Your task to perform on an android device: open chrome privacy settings Image 0: 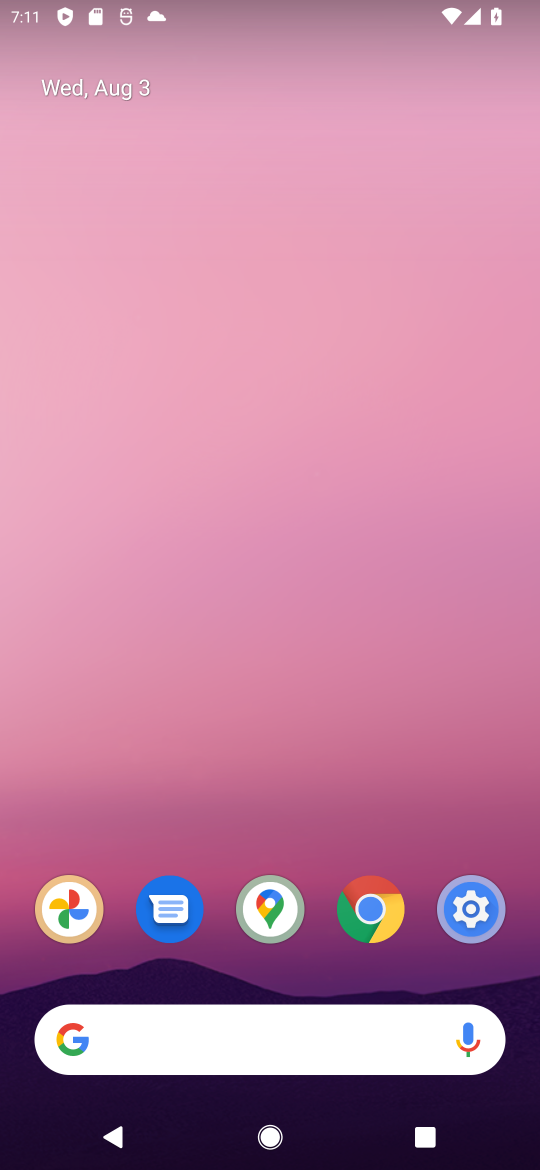
Step 0: press home button
Your task to perform on an android device: open chrome privacy settings Image 1: 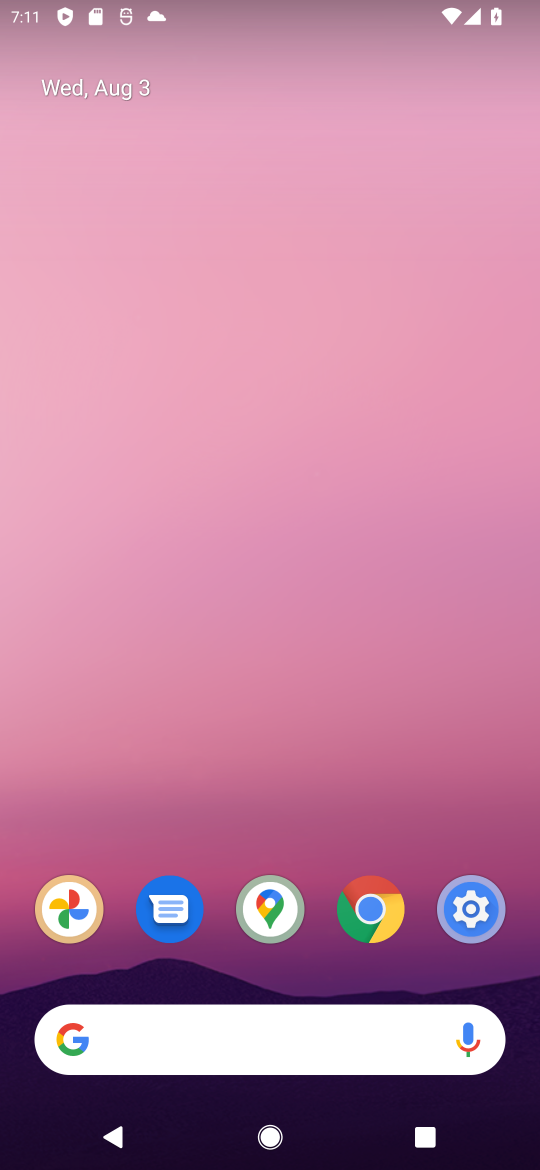
Step 1: drag from (308, 798) to (330, 142)
Your task to perform on an android device: open chrome privacy settings Image 2: 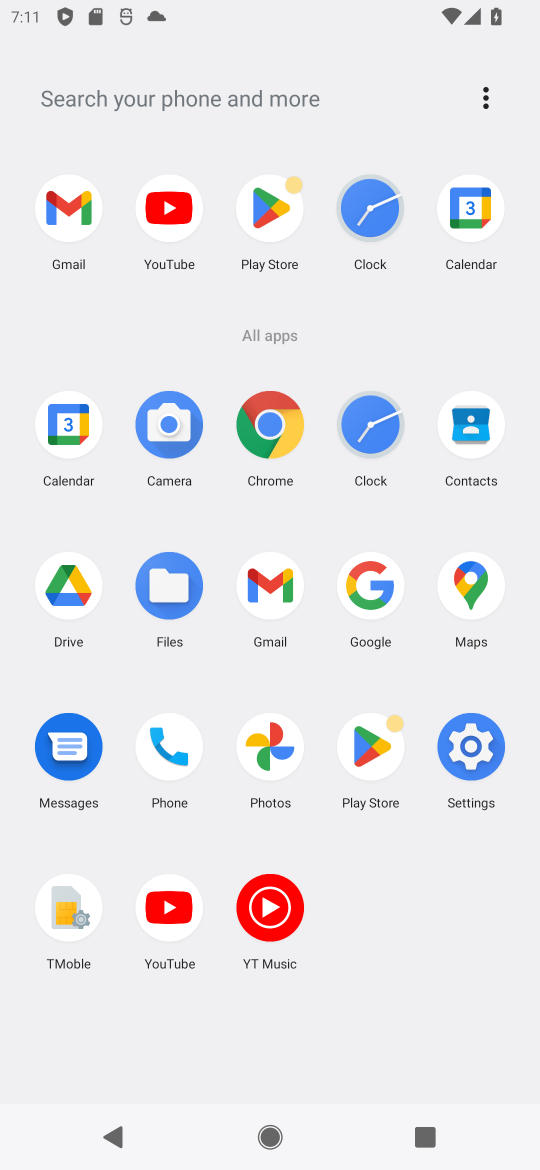
Step 2: click (279, 446)
Your task to perform on an android device: open chrome privacy settings Image 3: 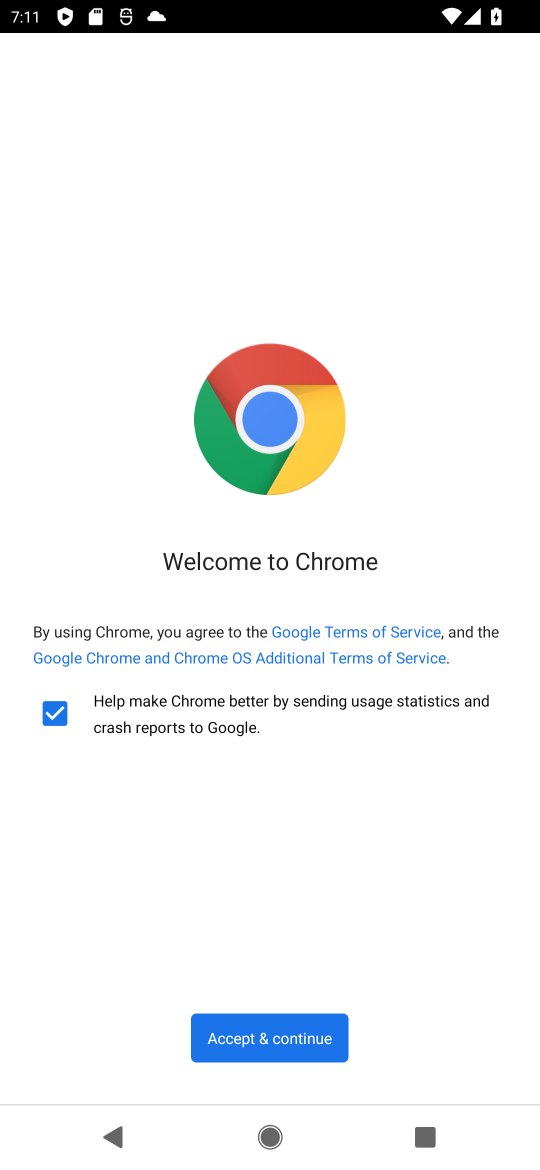
Step 3: click (256, 1035)
Your task to perform on an android device: open chrome privacy settings Image 4: 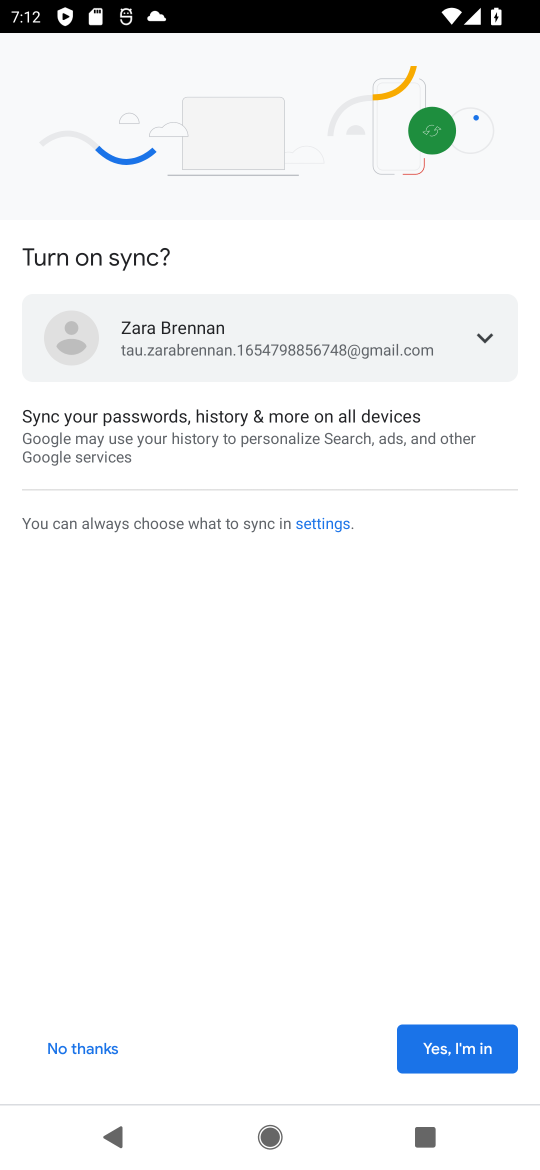
Step 4: click (451, 1047)
Your task to perform on an android device: open chrome privacy settings Image 5: 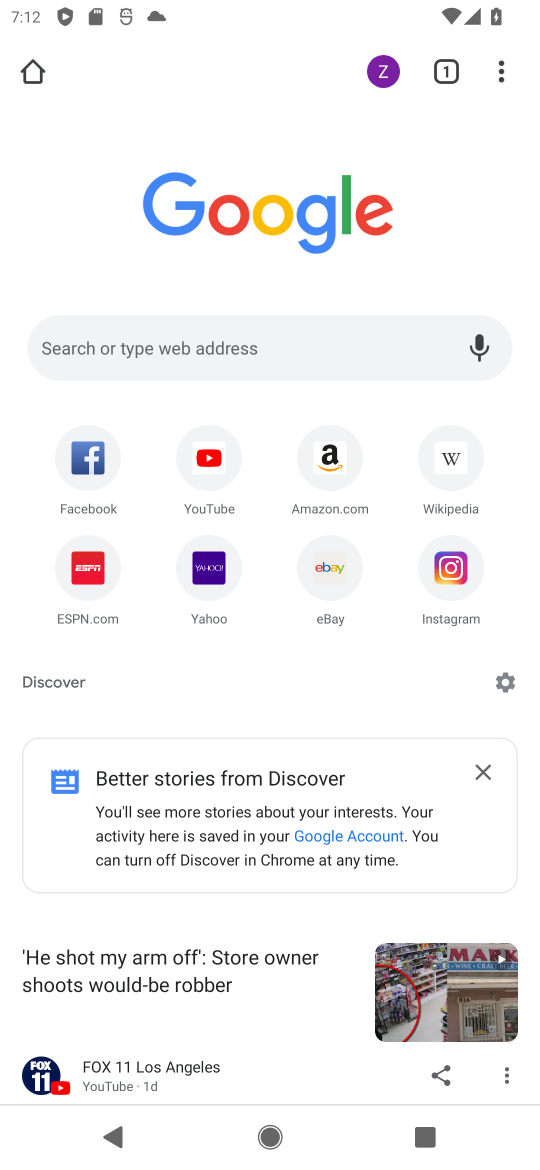
Step 5: click (504, 70)
Your task to perform on an android device: open chrome privacy settings Image 6: 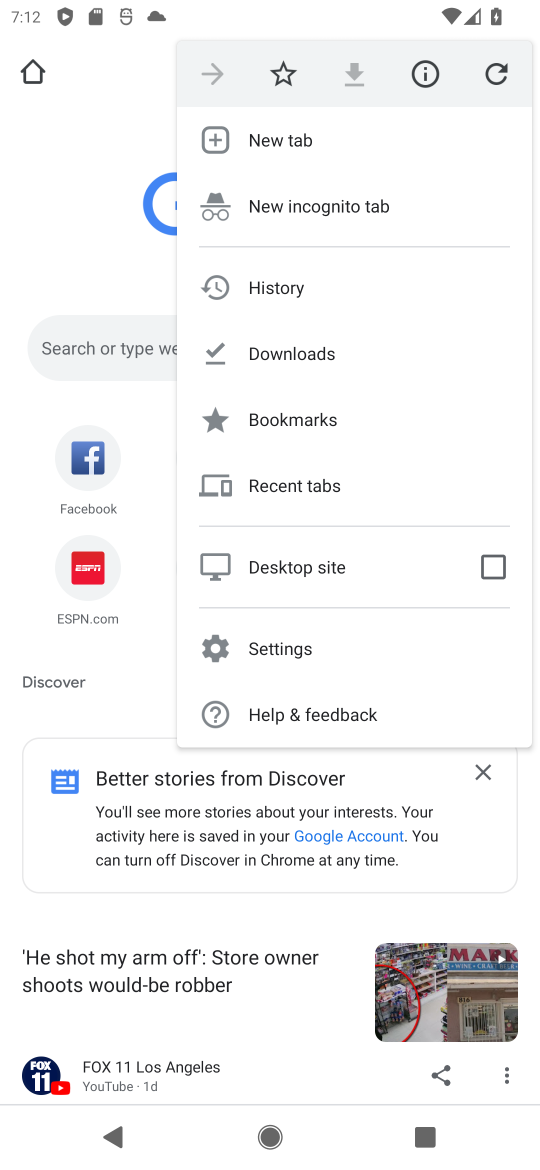
Step 6: click (308, 647)
Your task to perform on an android device: open chrome privacy settings Image 7: 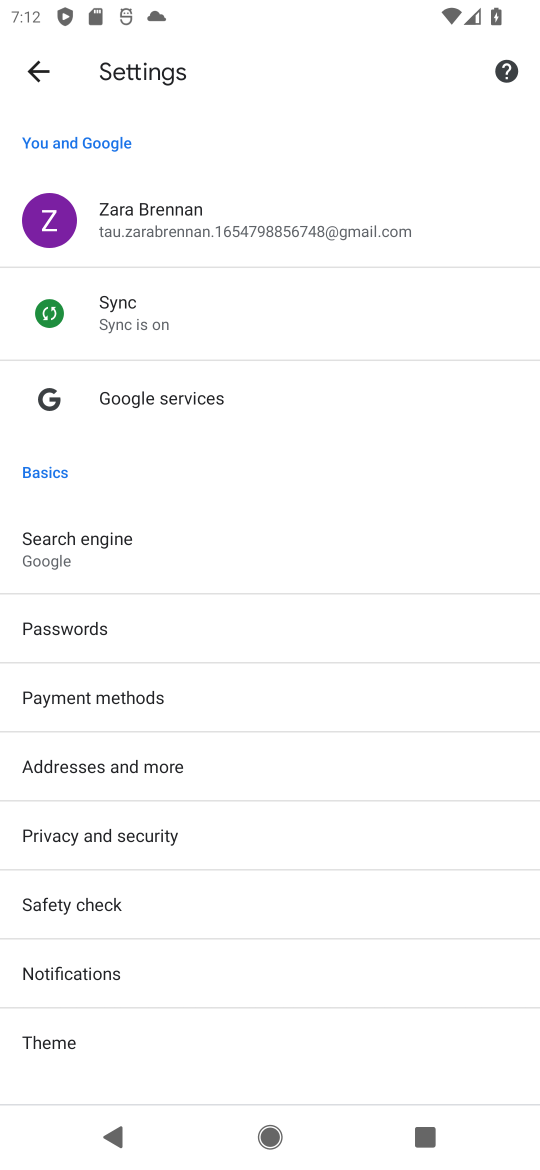
Step 7: drag from (370, 848) to (374, 574)
Your task to perform on an android device: open chrome privacy settings Image 8: 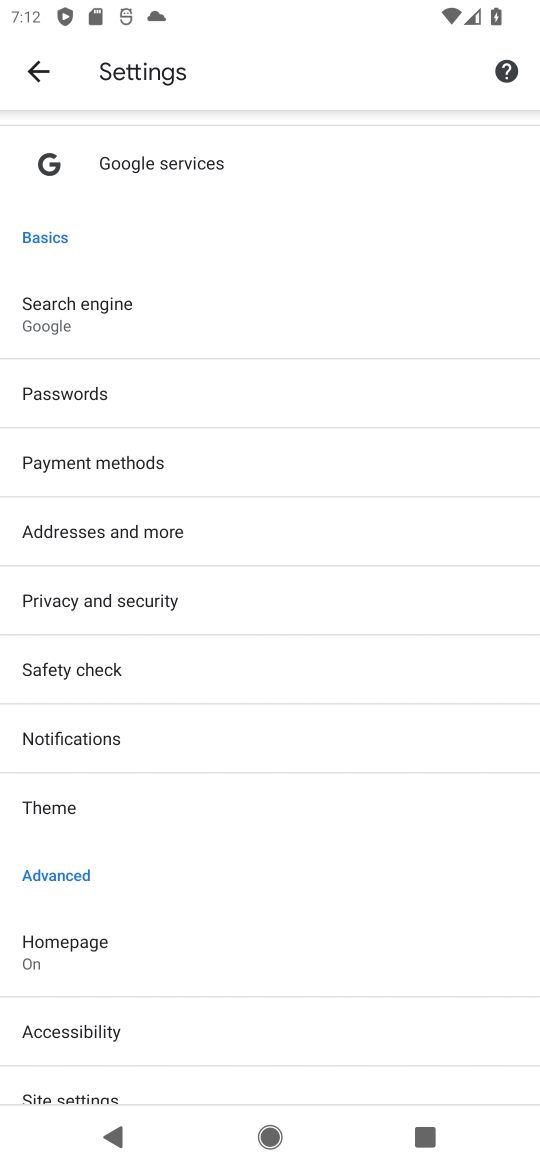
Step 8: drag from (382, 872) to (385, 622)
Your task to perform on an android device: open chrome privacy settings Image 9: 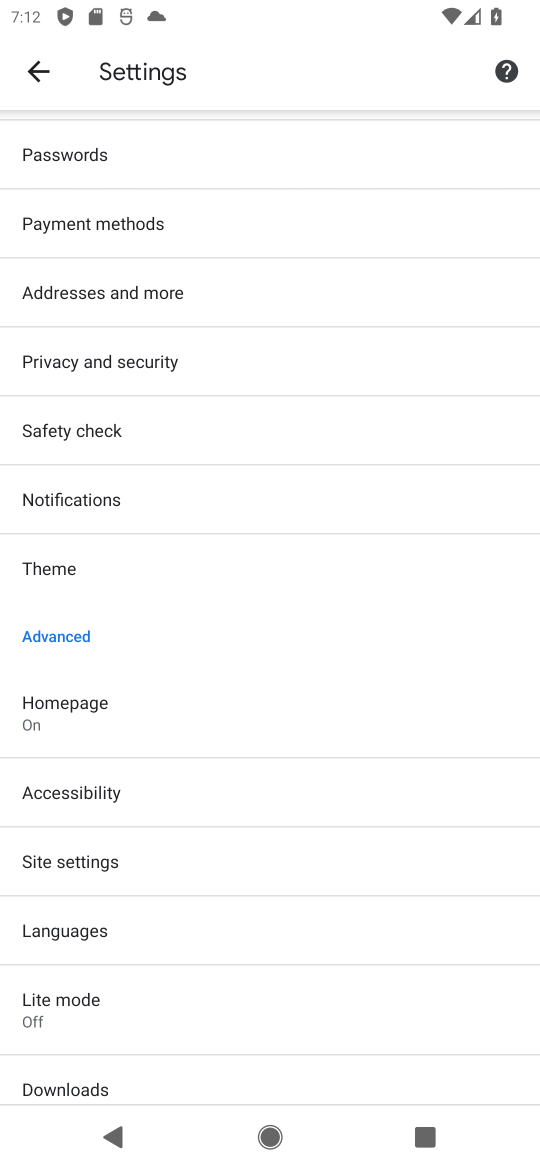
Step 9: drag from (368, 869) to (374, 518)
Your task to perform on an android device: open chrome privacy settings Image 10: 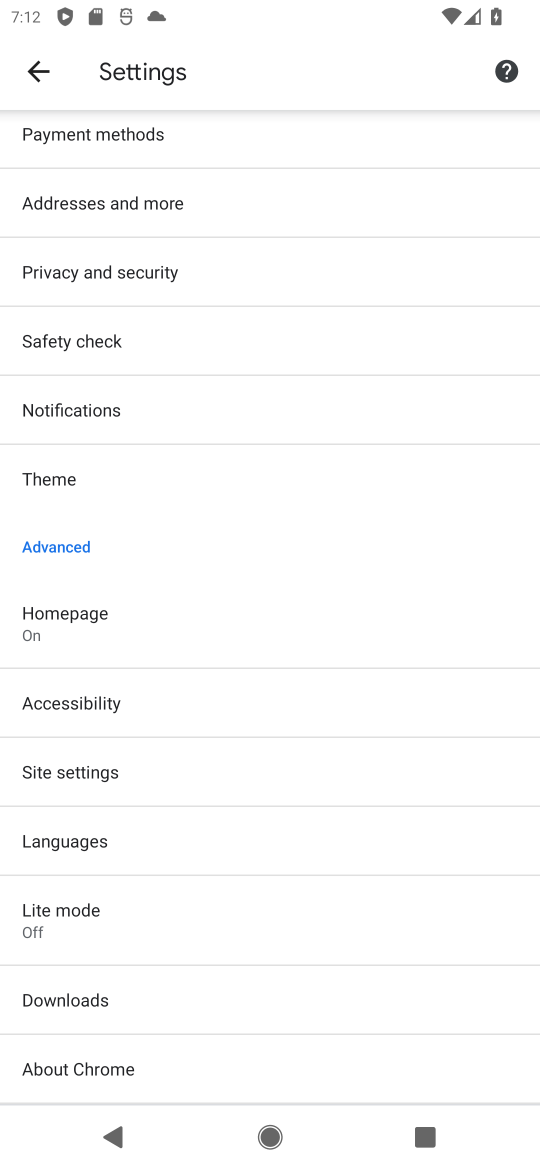
Step 10: drag from (379, 363) to (359, 642)
Your task to perform on an android device: open chrome privacy settings Image 11: 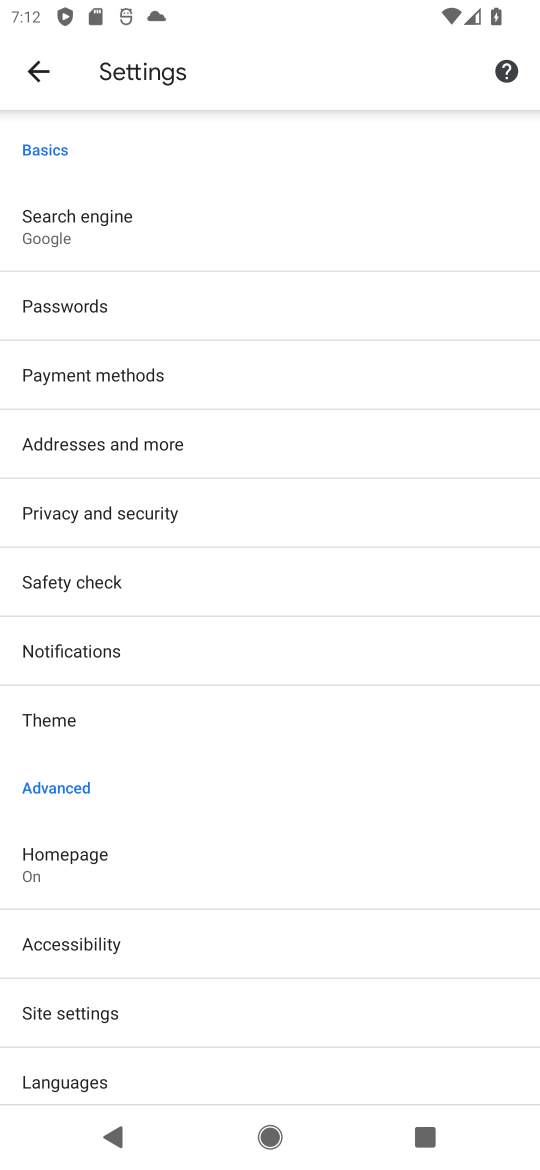
Step 11: click (325, 504)
Your task to perform on an android device: open chrome privacy settings Image 12: 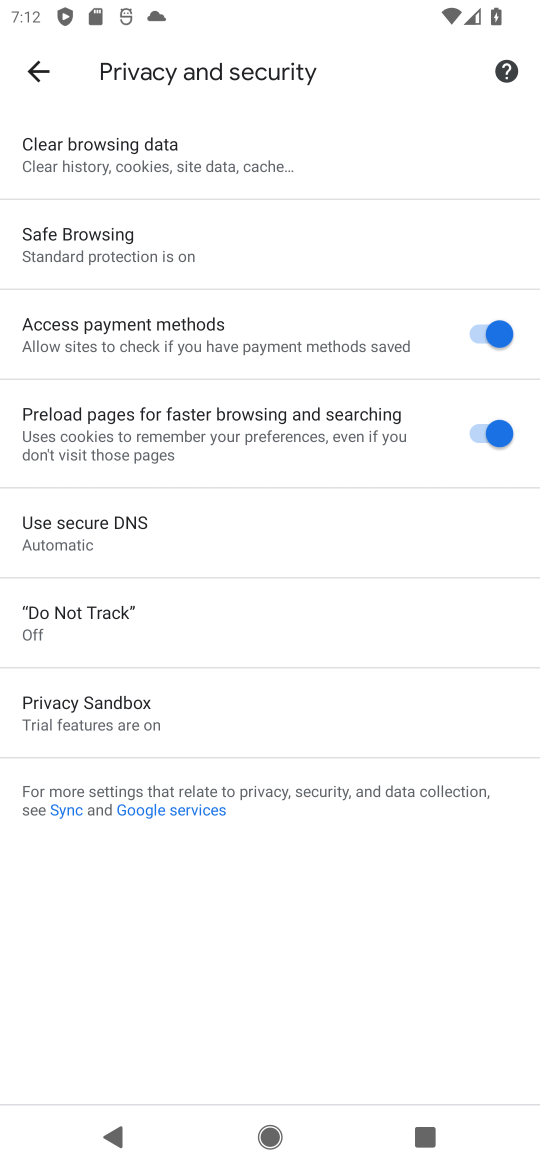
Step 12: task complete